Your task to perform on an android device: set default search engine in the chrome app Image 0: 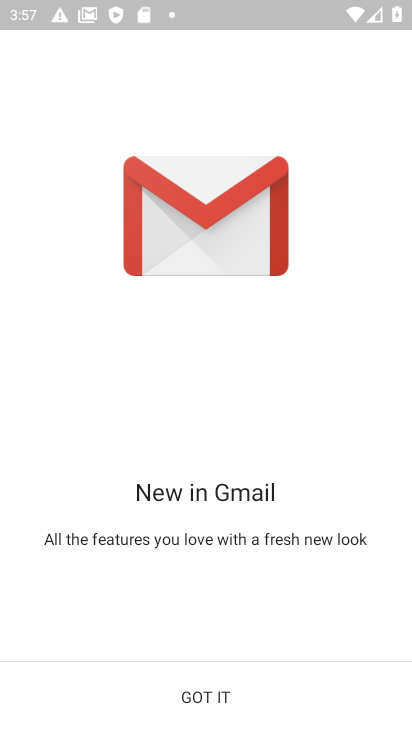
Step 0: press home button
Your task to perform on an android device: set default search engine in the chrome app Image 1: 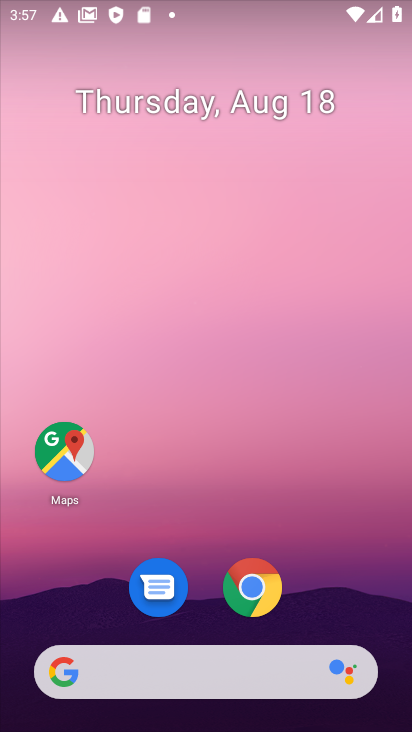
Step 1: drag from (356, 584) to (298, 104)
Your task to perform on an android device: set default search engine in the chrome app Image 2: 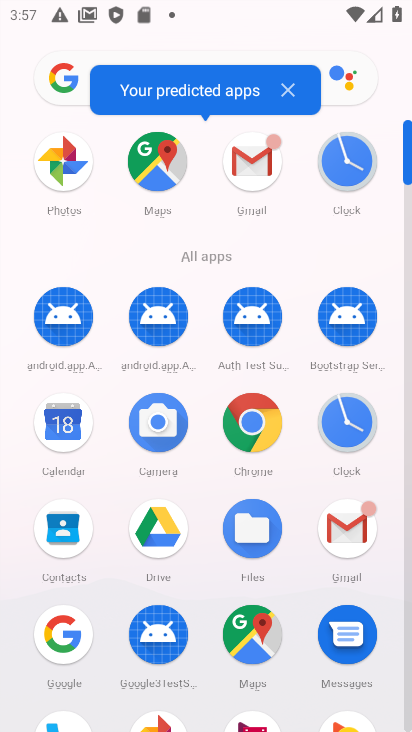
Step 2: click (252, 416)
Your task to perform on an android device: set default search engine in the chrome app Image 3: 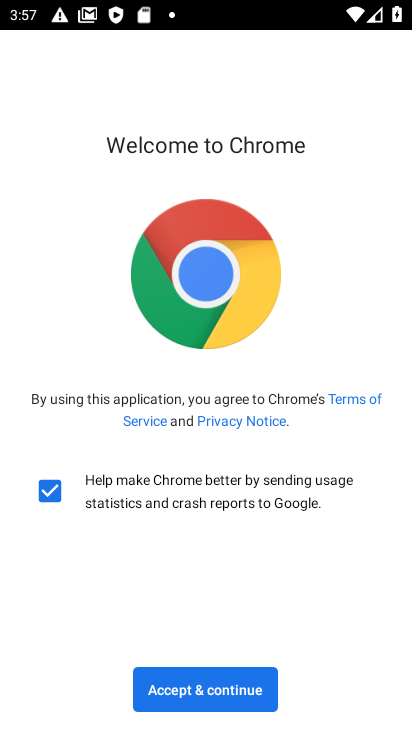
Step 3: click (234, 683)
Your task to perform on an android device: set default search engine in the chrome app Image 4: 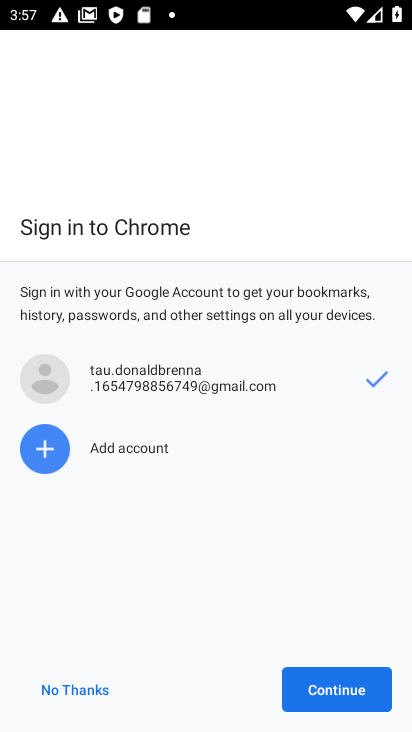
Step 4: click (328, 687)
Your task to perform on an android device: set default search engine in the chrome app Image 5: 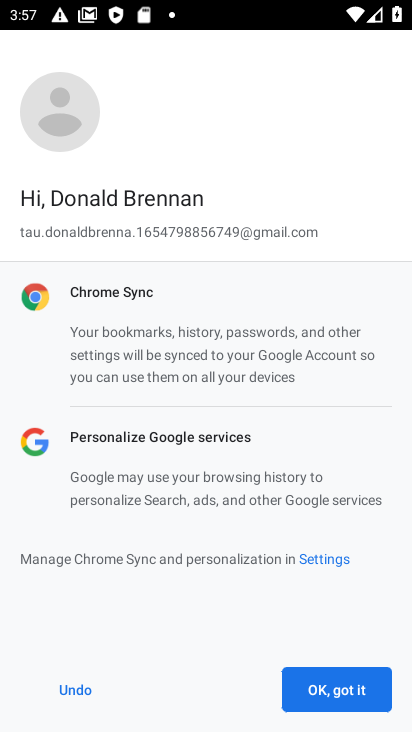
Step 5: click (328, 687)
Your task to perform on an android device: set default search engine in the chrome app Image 6: 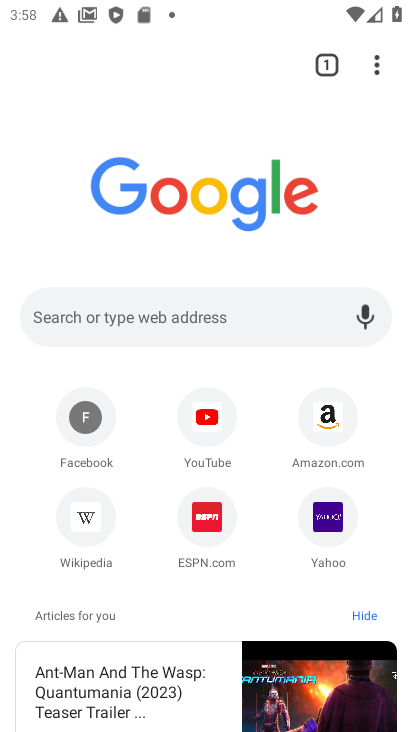
Step 6: click (332, 668)
Your task to perform on an android device: set default search engine in the chrome app Image 7: 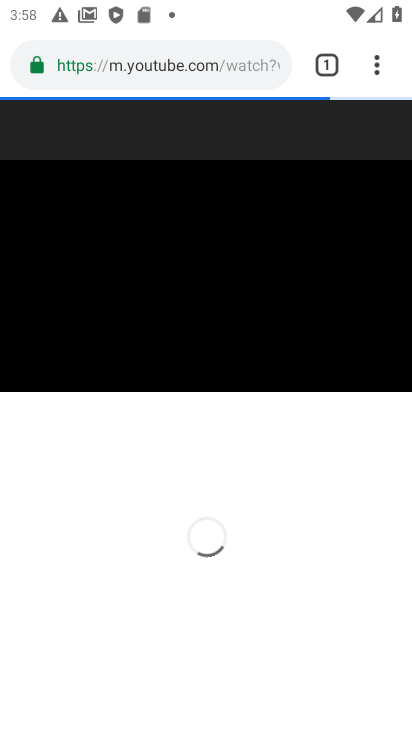
Step 7: drag from (367, 57) to (119, 127)
Your task to perform on an android device: set default search engine in the chrome app Image 8: 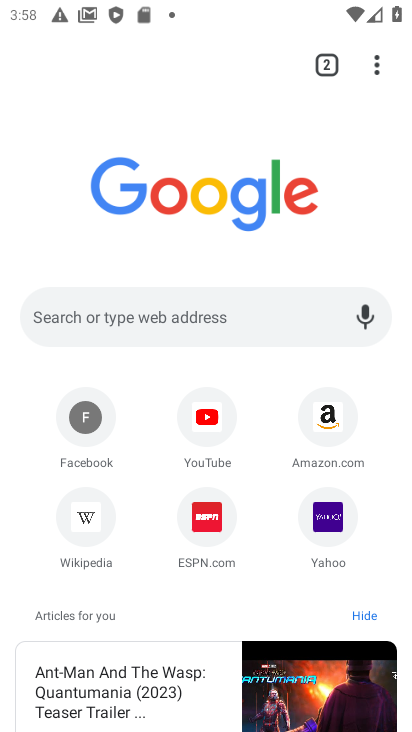
Step 8: click (105, 319)
Your task to perform on an android device: set default search engine in the chrome app Image 9: 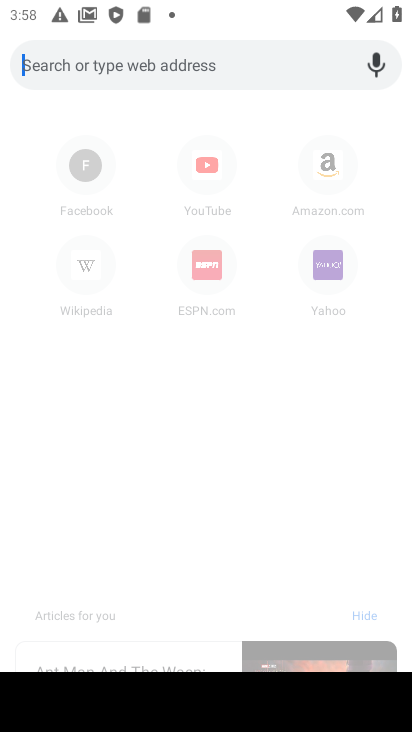
Step 9: press back button
Your task to perform on an android device: set default search engine in the chrome app Image 10: 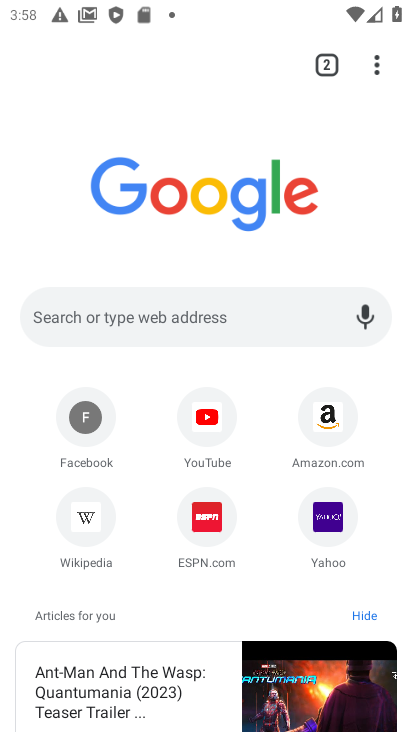
Step 10: click (369, 65)
Your task to perform on an android device: set default search engine in the chrome app Image 11: 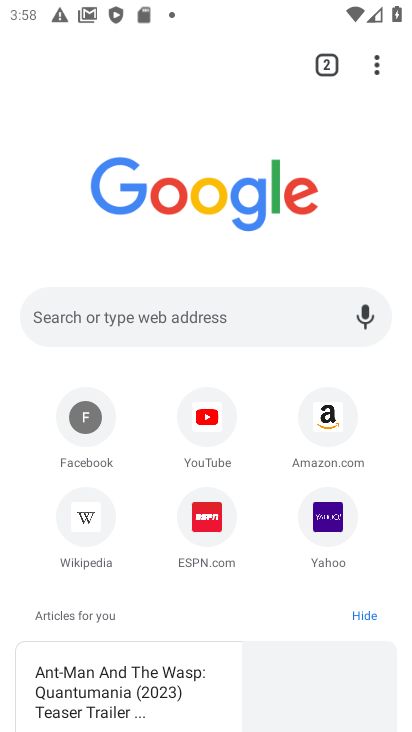
Step 11: drag from (369, 65) to (218, 535)
Your task to perform on an android device: set default search engine in the chrome app Image 12: 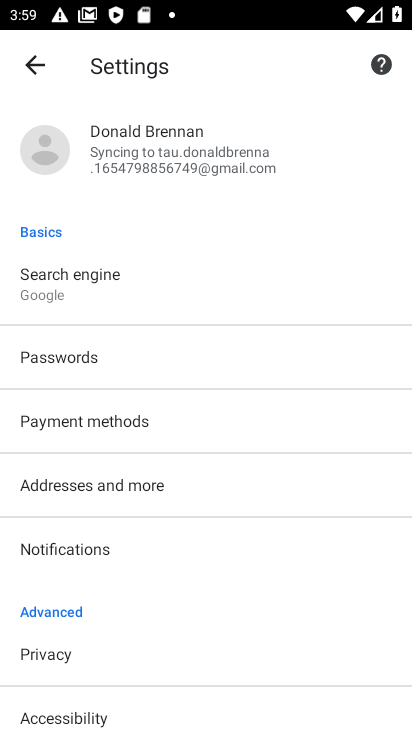
Step 12: click (56, 283)
Your task to perform on an android device: set default search engine in the chrome app Image 13: 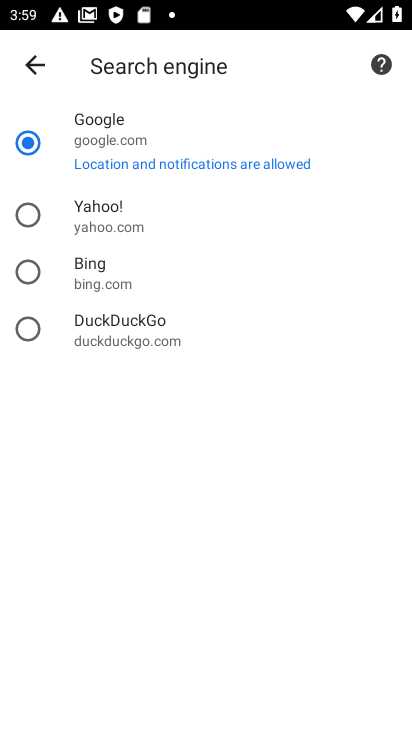
Step 13: task complete